Your task to perform on an android device: see creations saved in the google photos Image 0: 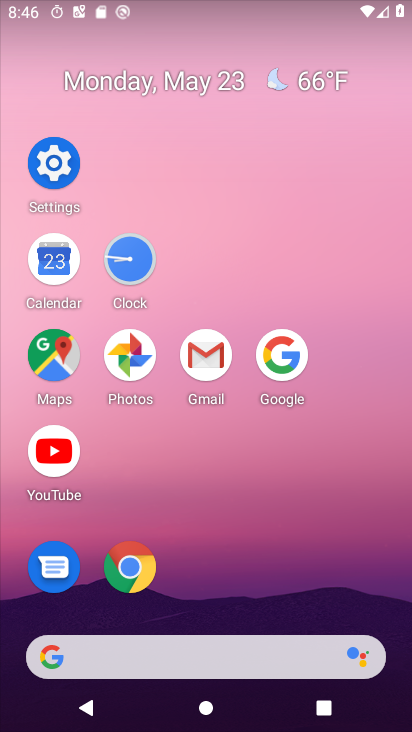
Step 0: click (124, 348)
Your task to perform on an android device: see creations saved in the google photos Image 1: 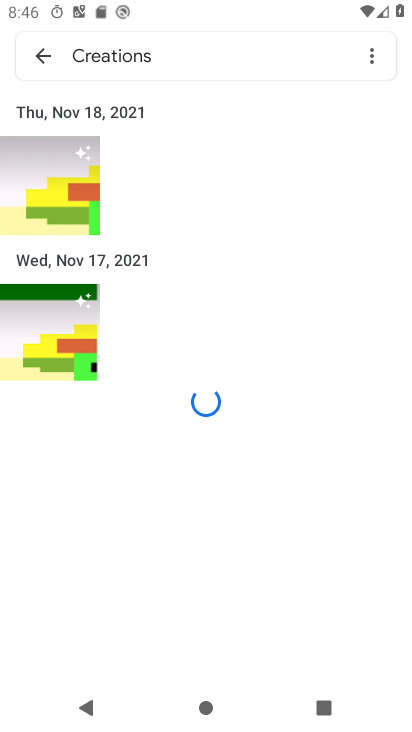
Step 1: task complete